Your task to perform on an android device: uninstall "Adobe Acrobat Reader: Edit PDF" Image 0: 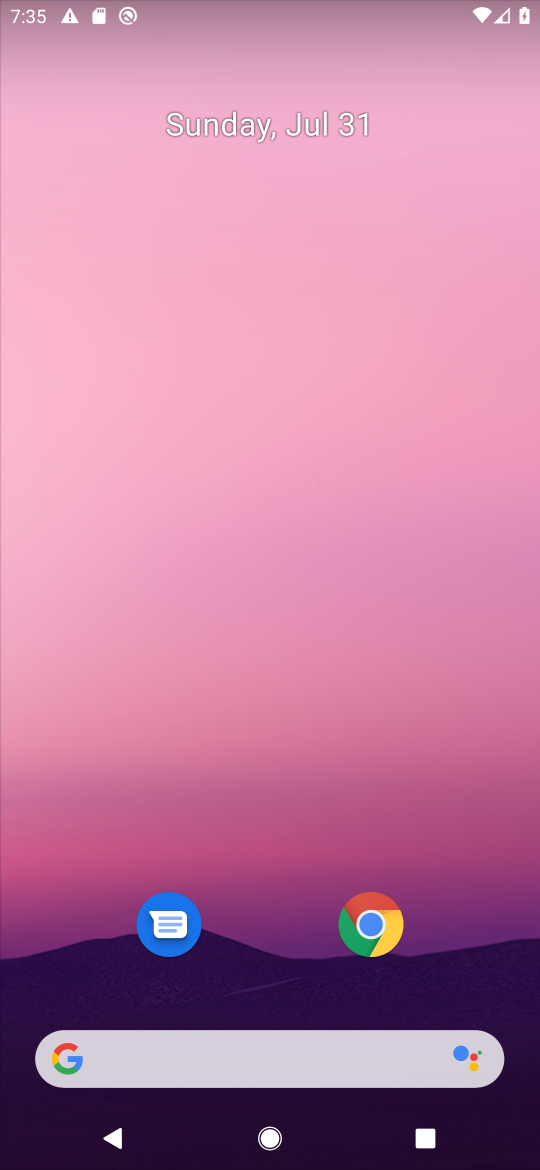
Step 0: drag from (216, 1016) to (308, 671)
Your task to perform on an android device: uninstall "Adobe Acrobat Reader: Edit PDF" Image 1: 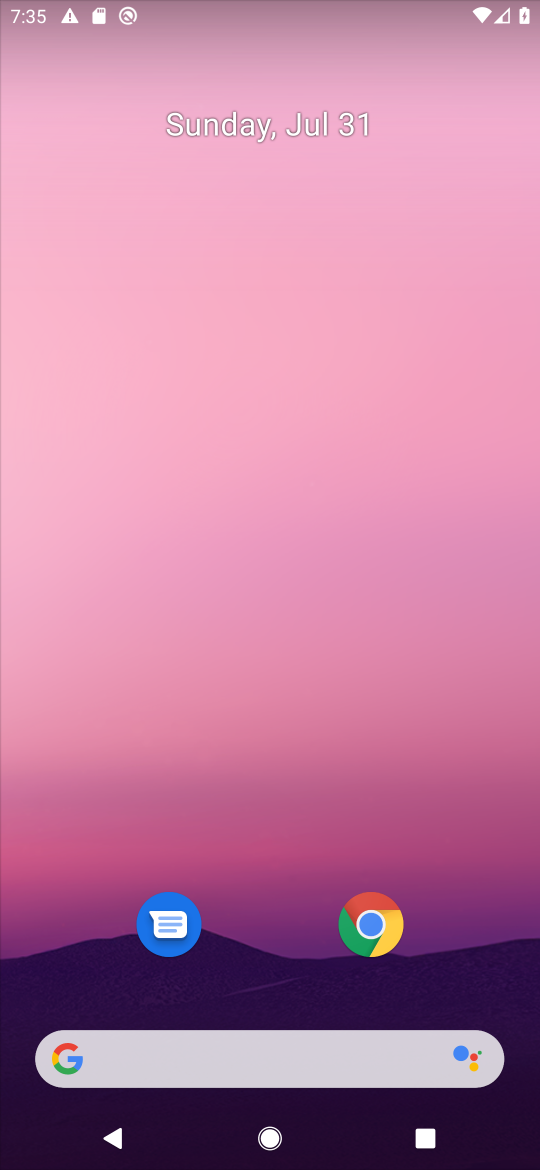
Step 1: drag from (389, 1006) to (525, 313)
Your task to perform on an android device: uninstall "Adobe Acrobat Reader: Edit PDF" Image 2: 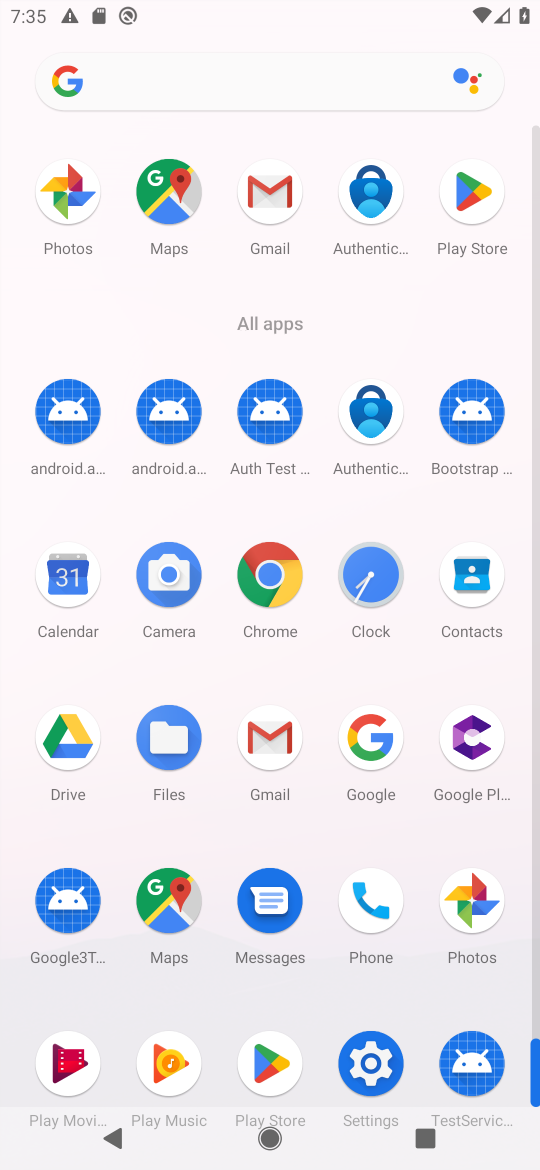
Step 2: click (469, 203)
Your task to perform on an android device: uninstall "Adobe Acrobat Reader: Edit PDF" Image 3: 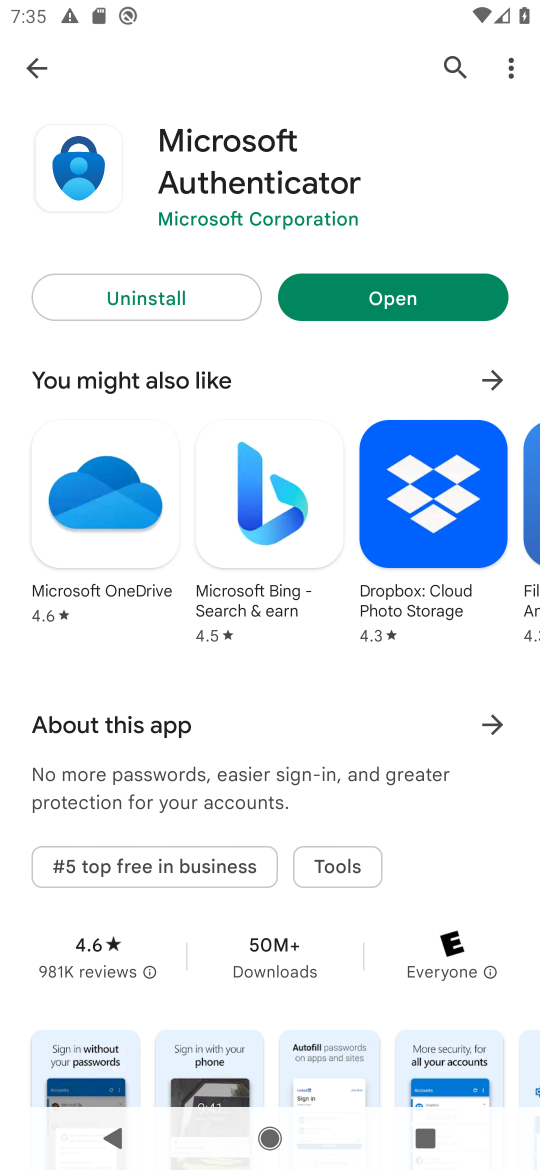
Step 3: click (33, 64)
Your task to perform on an android device: uninstall "Adobe Acrobat Reader: Edit PDF" Image 4: 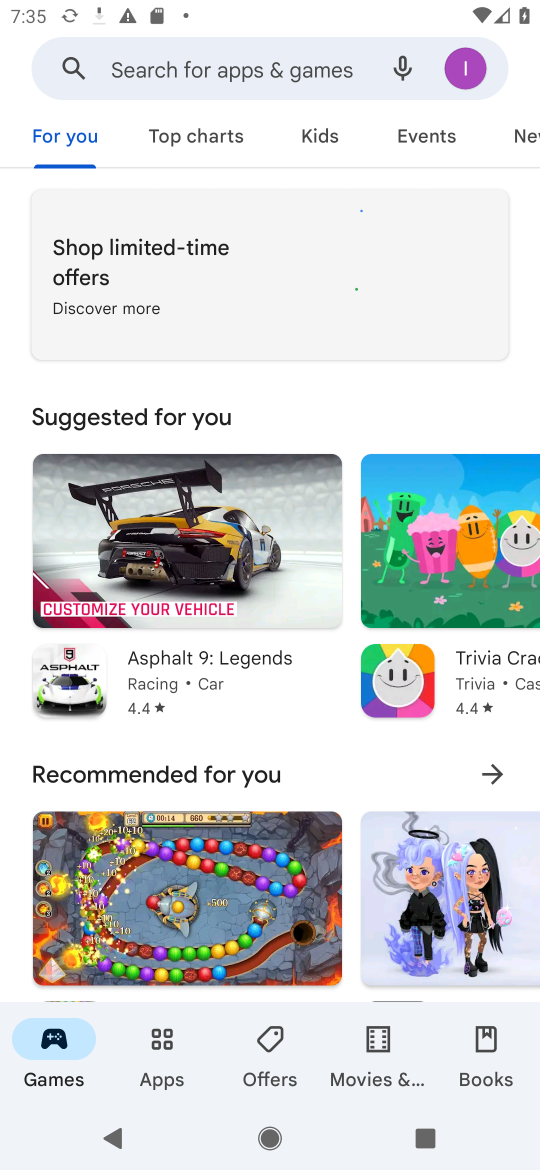
Step 4: click (178, 70)
Your task to perform on an android device: uninstall "Adobe Acrobat Reader: Edit PDF" Image 5: 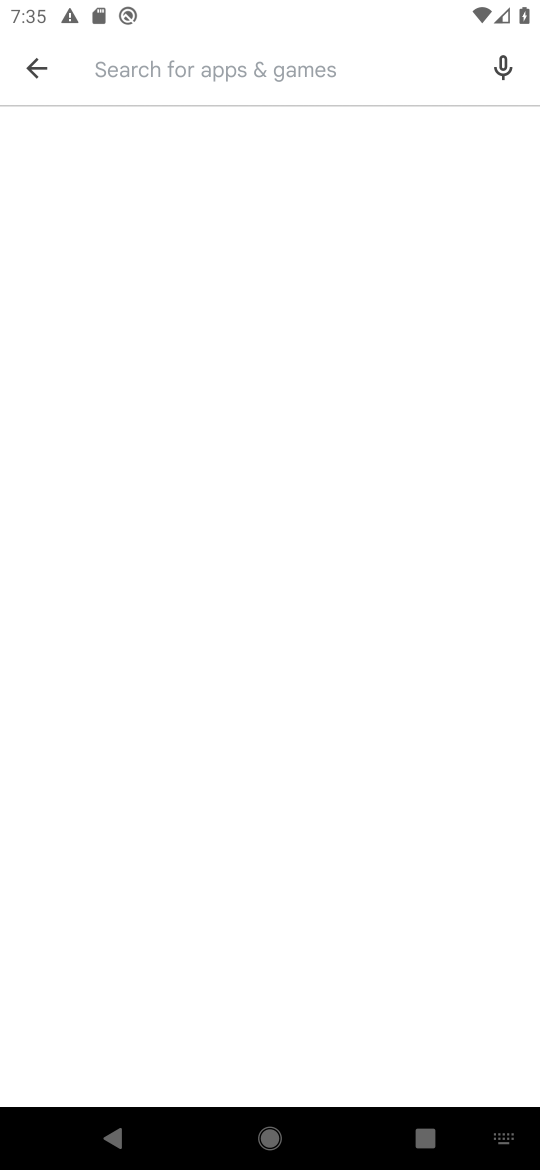
Step 5: type "Adobe Acrobat Reader: Edit PDF"
Your task to perform on an android device: uninstall "Adobe Acrobat Reader: Edit PDF" Image 6: 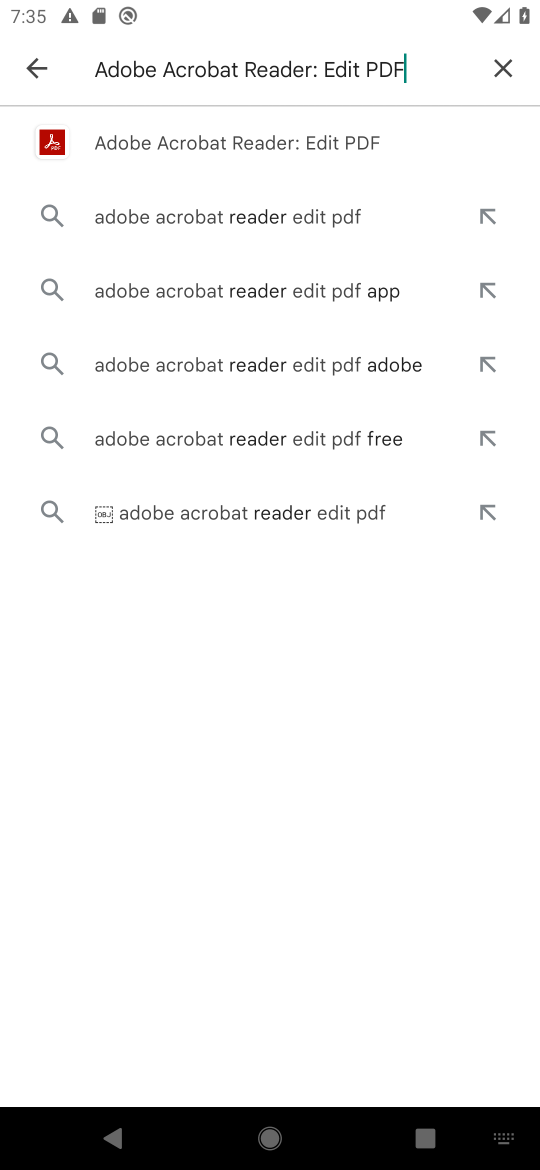
Step 6: click (279, 136)
Your task to perform on an android device: uninstall "Adobe Acrobat Reader: Edit PDF" Image 7: 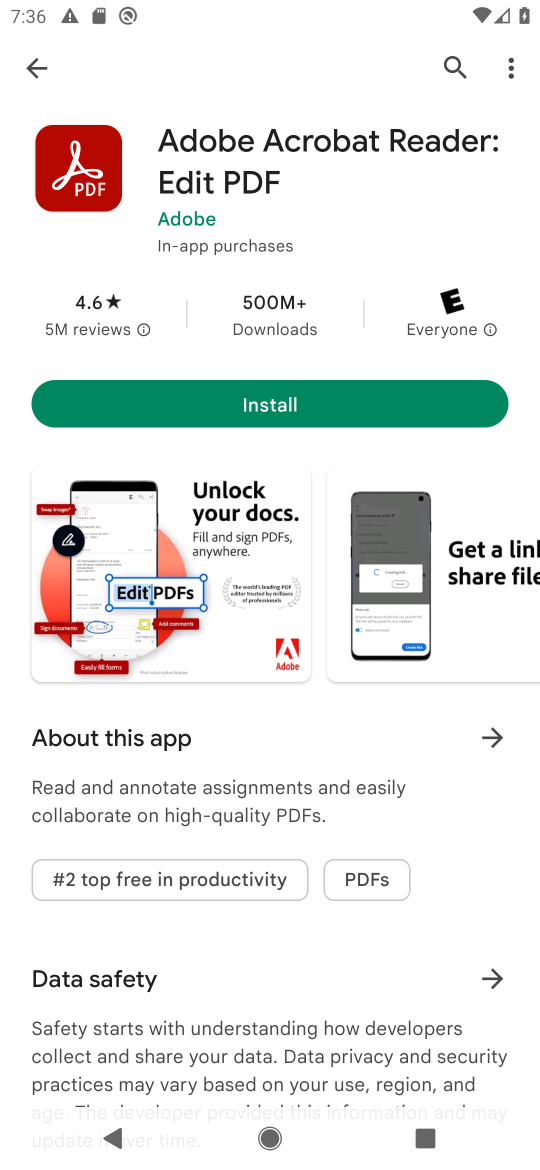
Step 7: task complete